Your task to perform on an android device: toggle javascript in the chrome app Image 0: 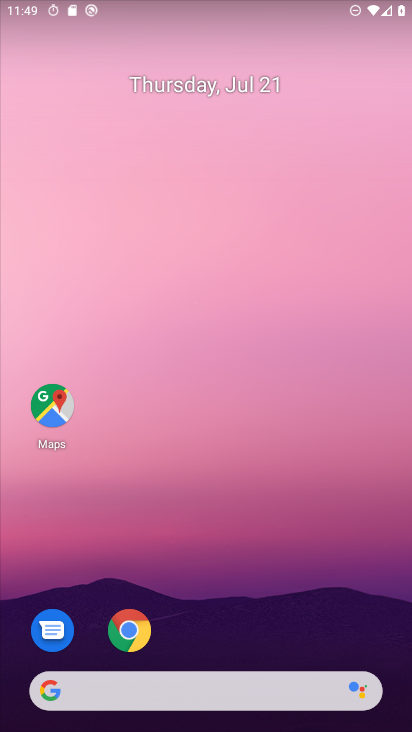
Step 0: press home button
Your task to perform on an android device: toggle javascript in the chrome app Image 1: 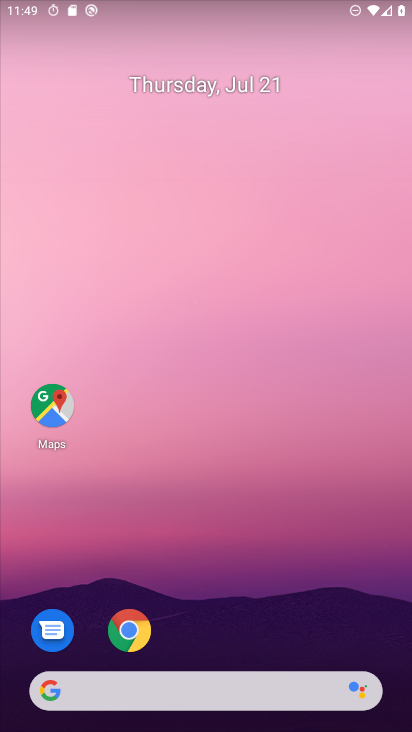
Step 1: click (121, 622)
Your task to perform on an android device: toggle javascript in the chrome app Image 2: 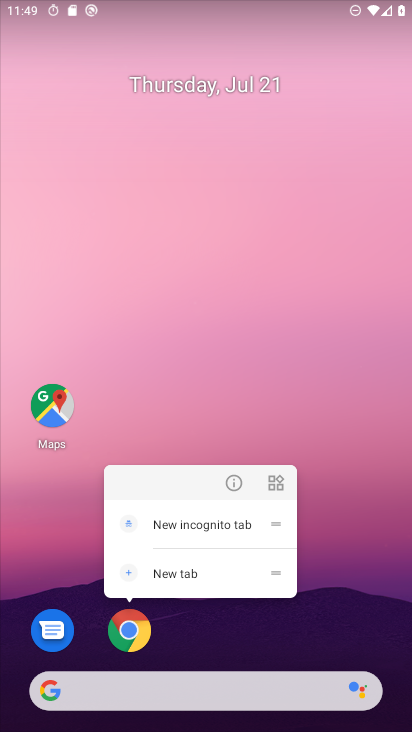
Step 2: click (128, 637)
Your task to perform on an android device: toggle javascript in the chrome app Image 3: 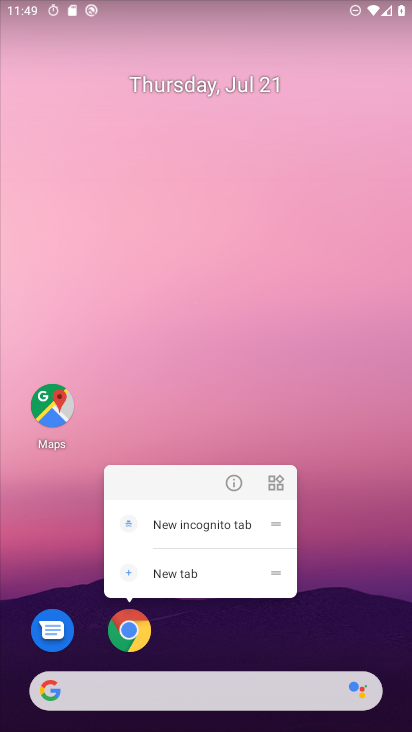
Step 3: click (128, 637)
Your task to perform on an android device: toggle javascript in the chrome app Image 4: 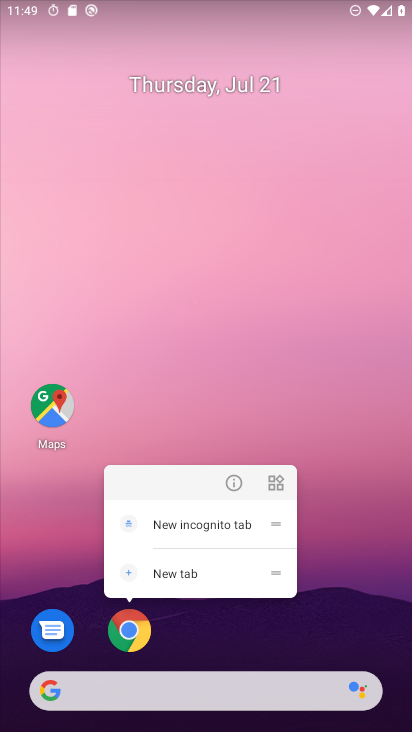
Step 4: click (128, 637)
Your task to perform on an android device: toggle javascript in the chrome app Image 5: 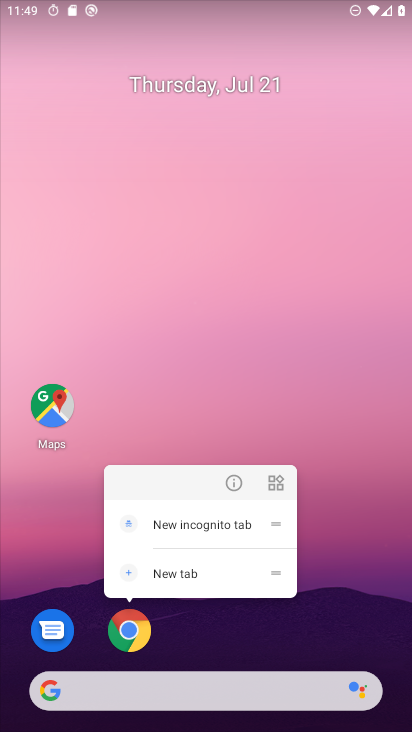
Step 5: click (126, 620)
Your task to perform on an android device: toggle javascript in the chrome app Image 6: 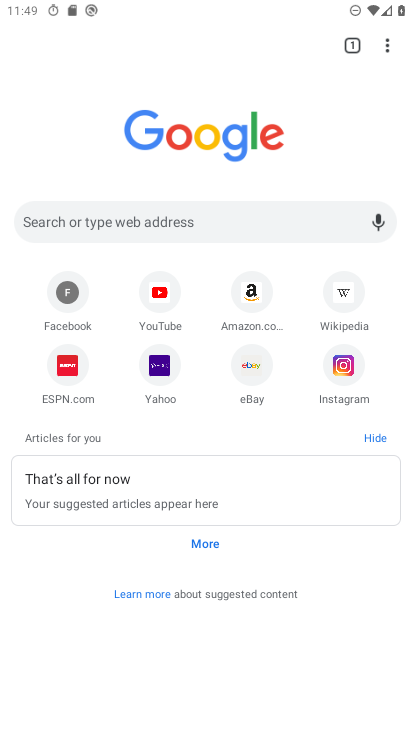
Step 6: drag from (384, 43) to (227, 427)
Your task to perform on an android device: toggle javascript in the chrome app Image 7: 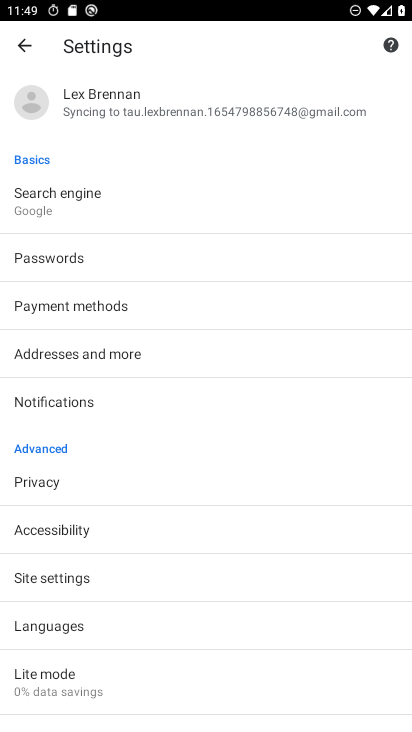
Step 7: click (74, 578)
Your task to perform on an android device: toggle javascript in the chrome app Image 8: 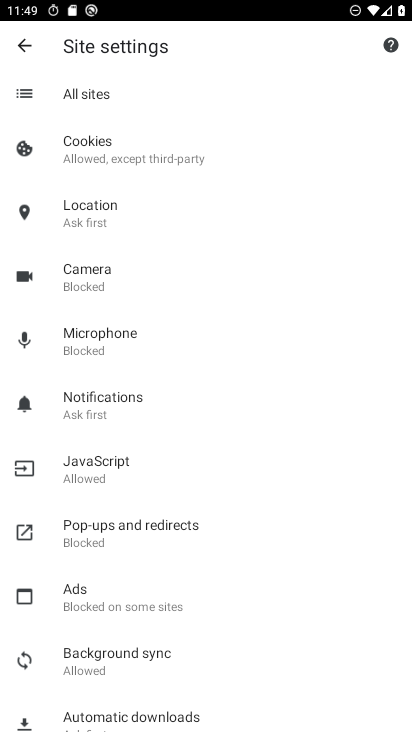
Step 8: drag from (265, 562) to (272, 407)
Your task to perform on an android device: toggle javascript in the chrome app Image 9: 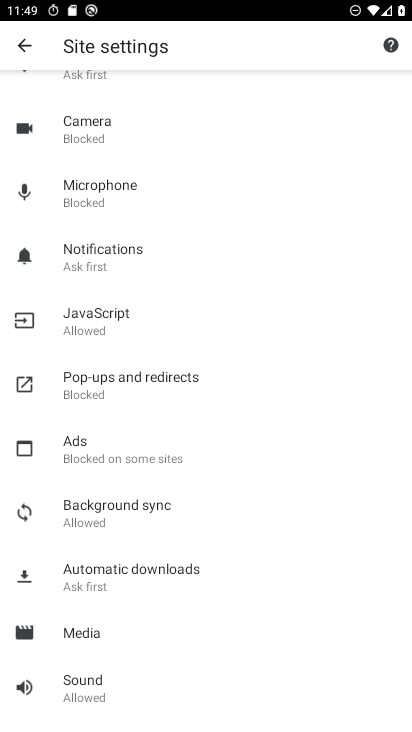
Step 9: click (106, 314)
Your task to perform on an android device: toggle javascript in the chrome app Image 10: 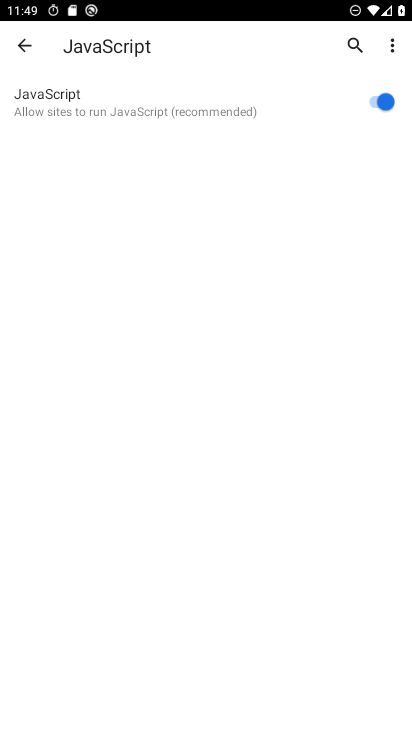
Step 10: click (386, 98)
Your task to perform on an android device: toggle javascript in the chrome app Image 11: 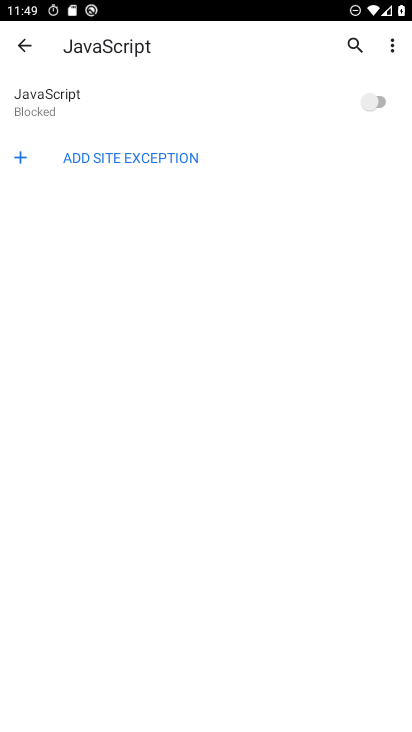
Step 11: task complete